Your task to perform on an android device: Open Google Image 0: 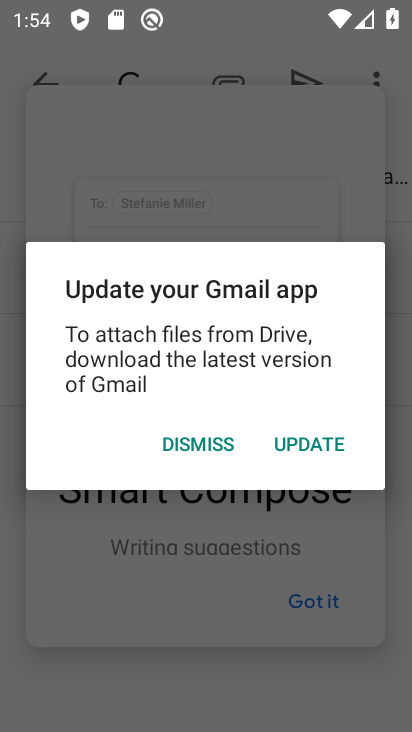
Step 0: press home button
Your task to perform on an android device: Open Google Image 1: 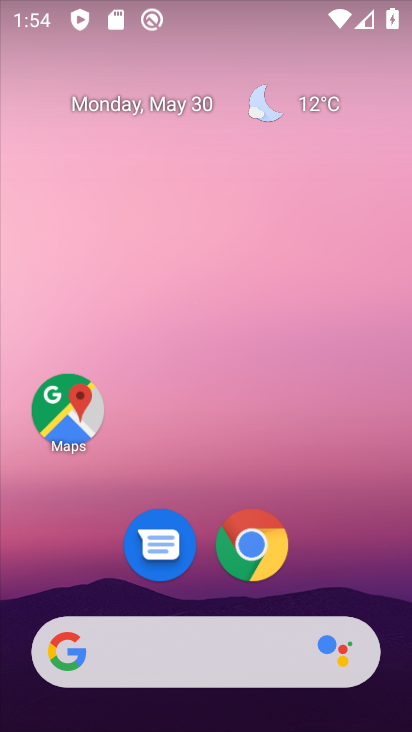
Step 1: click (152, 642)
Your task to perform on an android device: Open Google Image 2: 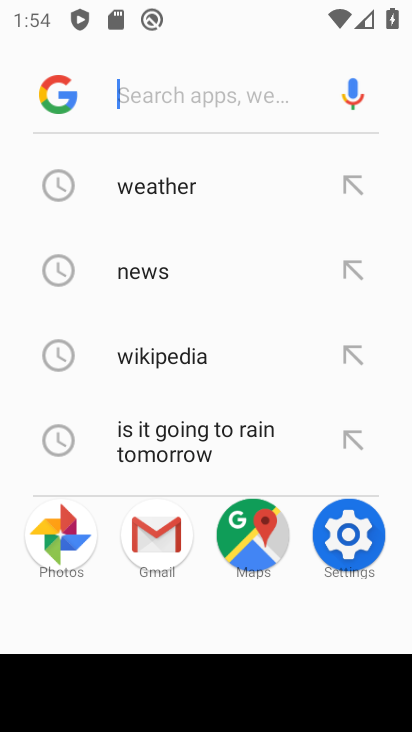
Step 2: task complete